Your task to perform on an android device: Open Yahoo.com Image 0: 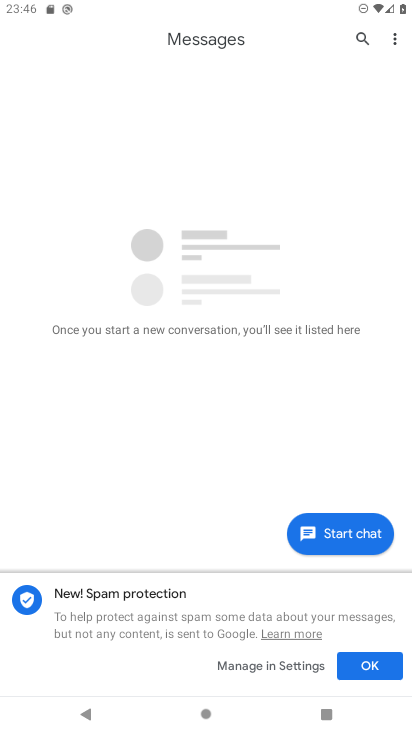
Step 0: press home button
Your task to perform on an android device: Open Yahoo.com Image 1: 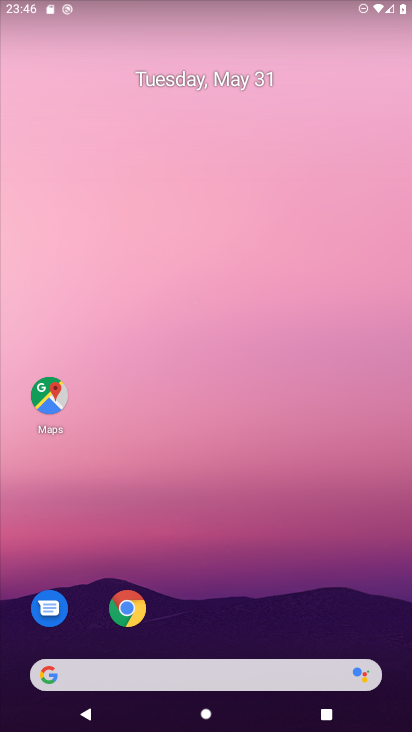
Step 1: click (113, 604)
Your task to perform on an android device: Open Yahoo.com Image 2: 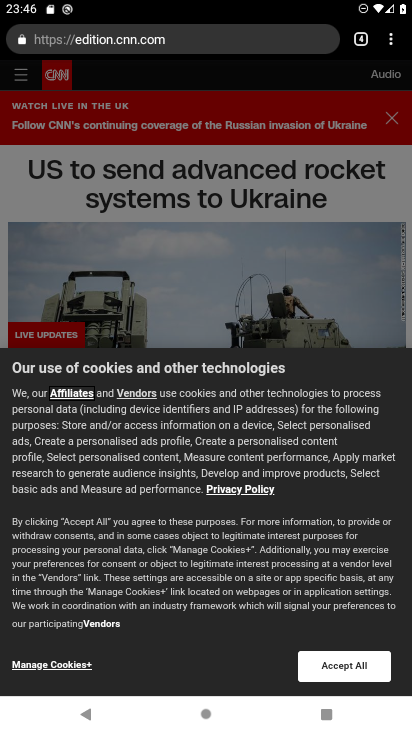
Step 2: click (291, 40)
Your task to perform on an android device: Open Yahoo.com Image 3: 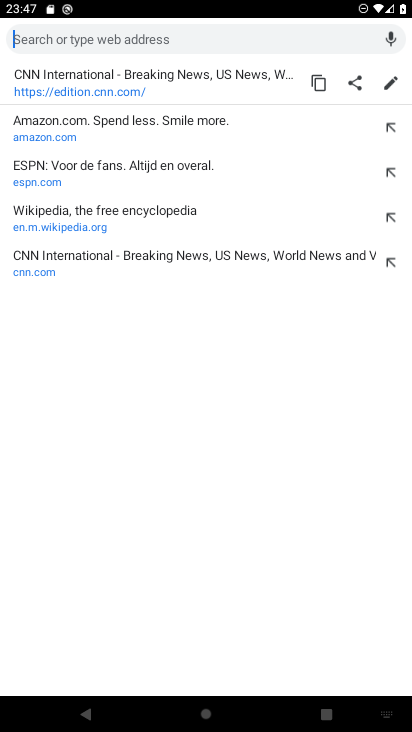
Step 3: type "Yahoo.com"
Your task to perform on an android device: Open Yahoo.com Image 4: 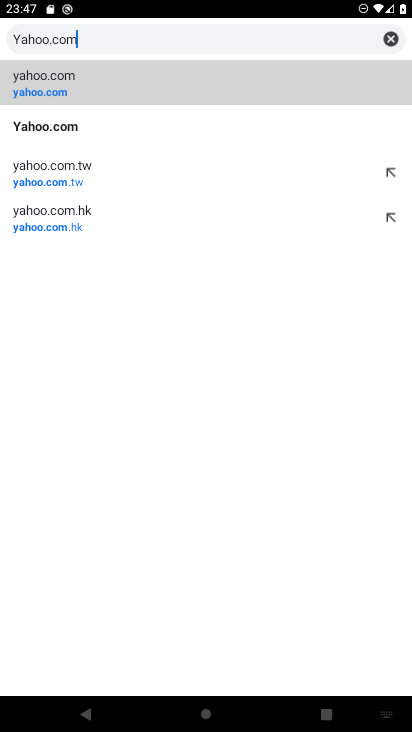
Step 4: type ""
Your task to perform on an android device: Open Yahoo.com Image 5: 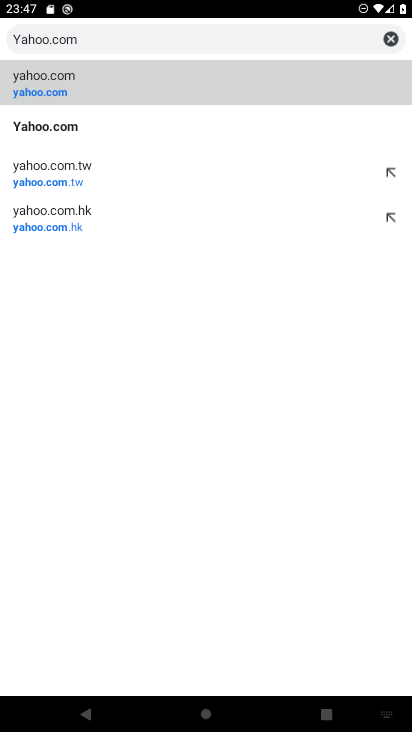
Step 5: click (84, 70)
Your task to perform on an android device: Open Yahoo.com Image 6: 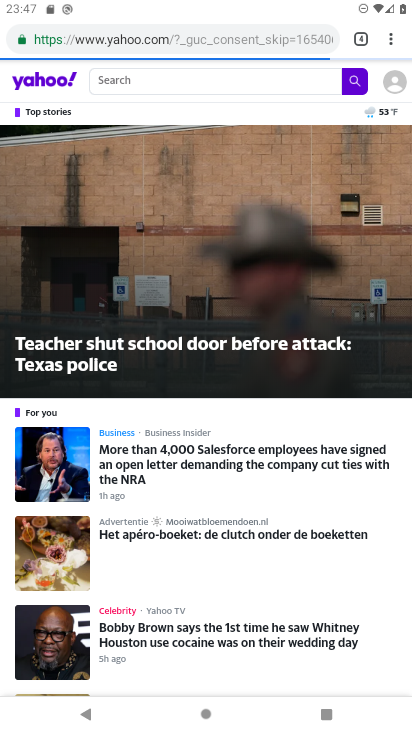
Step 6: task complete